Your task to perform on an android device: When is my next appointment? Image 0: 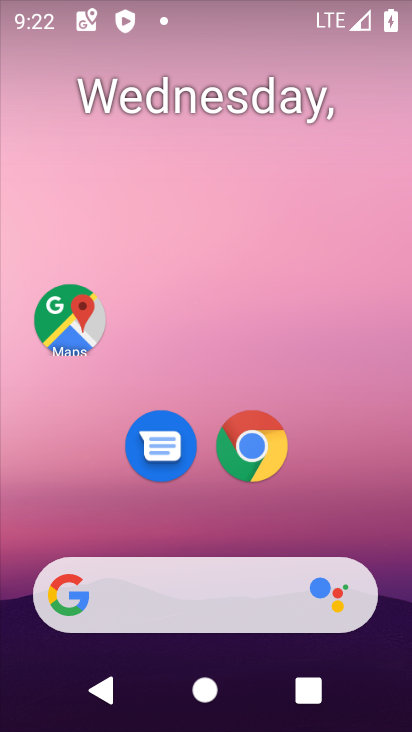
Step 0: press home button
Your task to perform on an android device: When is my next appointment? Image 1: 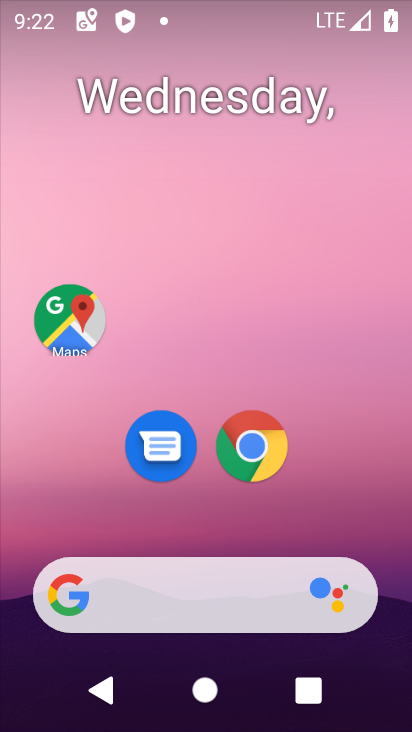
Step 1: drag from (191, 601) to (317, 161)
Your task to perform on an android device: When is my next appointment? Image 2: 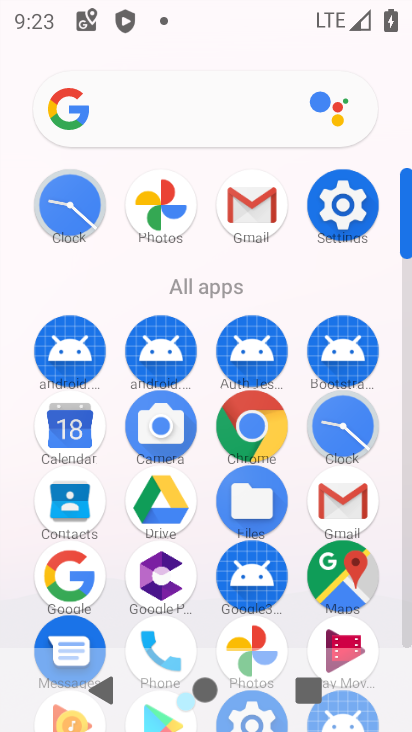
Step 2: click (68, 439)
Your task to perform on an android device: When is my next appointment? Image 3: 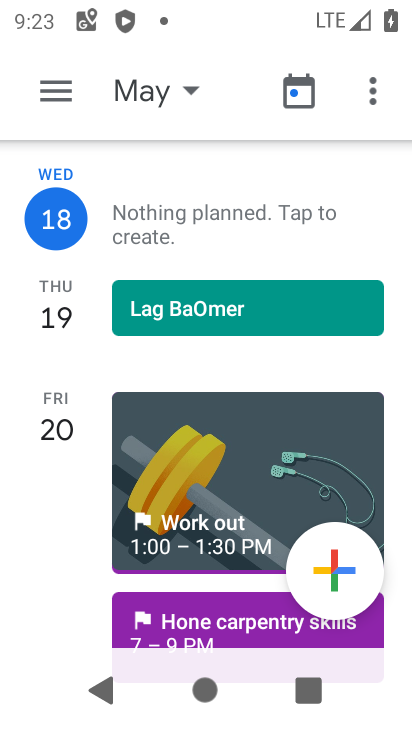
Step 3: click (137, 89)
Your task to perform on an android device: When is my next appointment? Image 4: 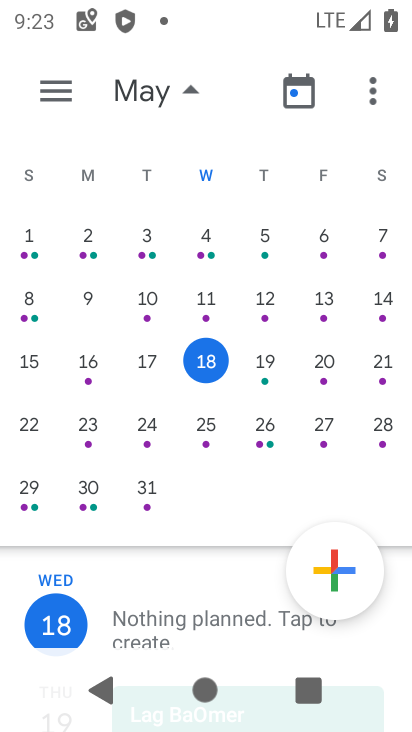
Step 4: click (63, 99)
Your task to perform on an android device: When is my next appointment? Image 5: 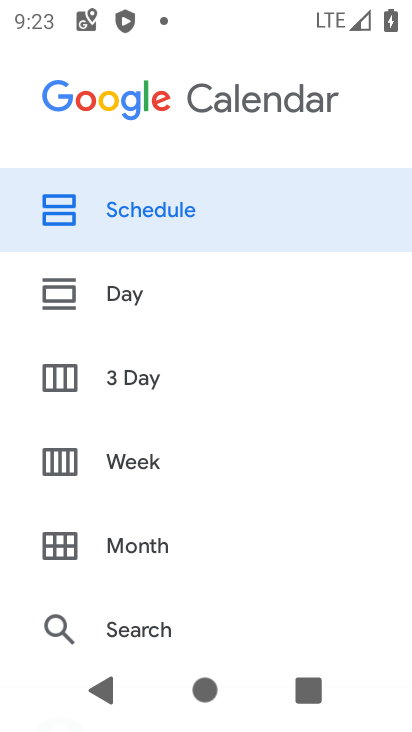
Step 5: click (141, 226)
Your task to perform on an android device: When is my next appointment? Image 6: 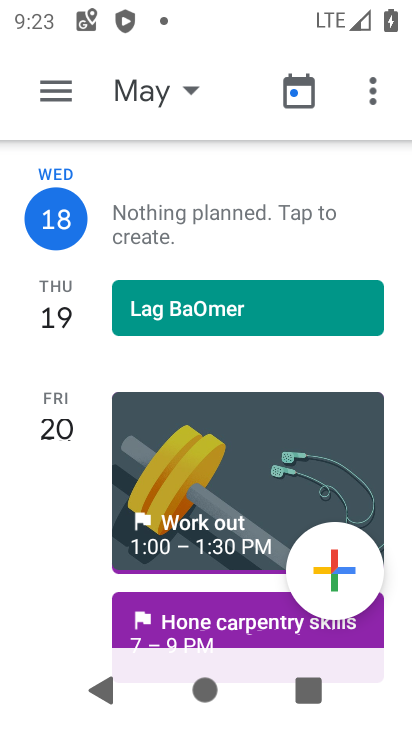
Step 6: drag from (224, 579) to (298, 151)
Your task to perform on an android device: When is my next appointment? Image 7: 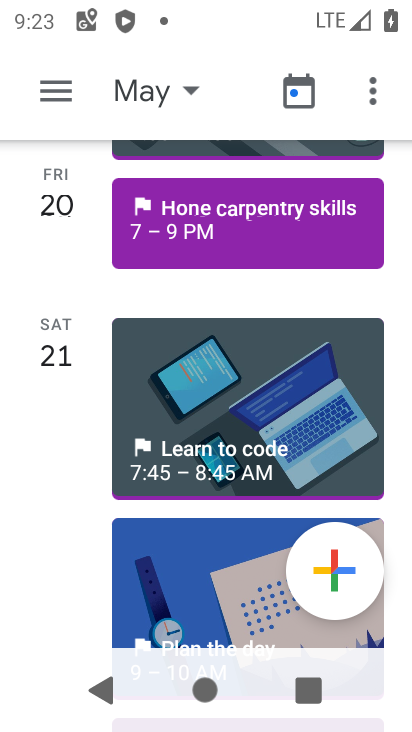
Step 7: click (253, 222)
Your task to perform on an android device: When is my next appointment? Image 8: 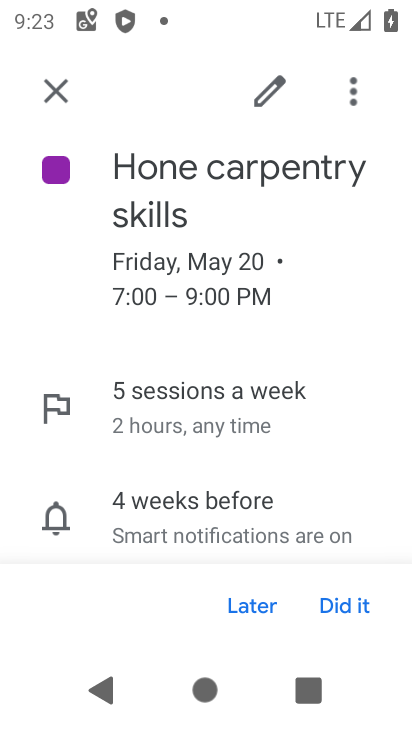
Step 8: task complete